Your task to perform on an android device: check storage Image 0: 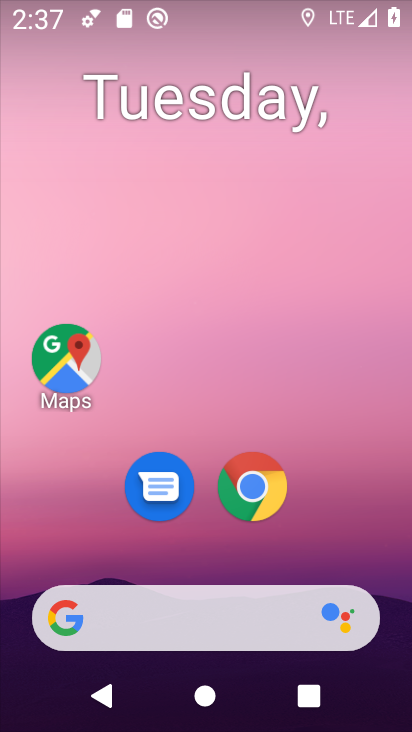
Step 0: drag from (343, 549) to (348, 130)
Your task to perform on an android device: check storage Image 1: 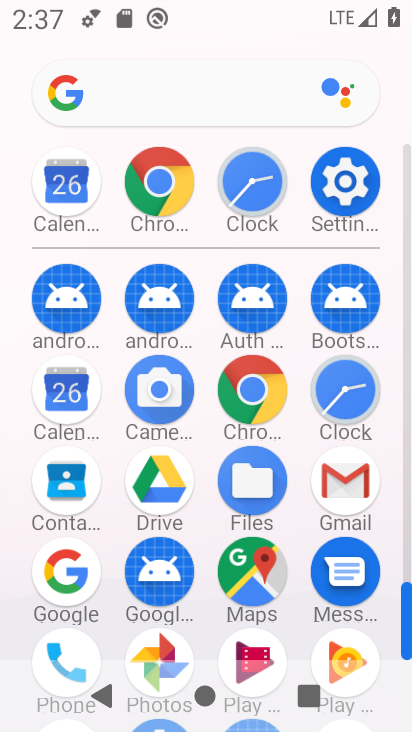
Step 1: click (353, 190)
Your task to perform on an android device: check storage Image 2: 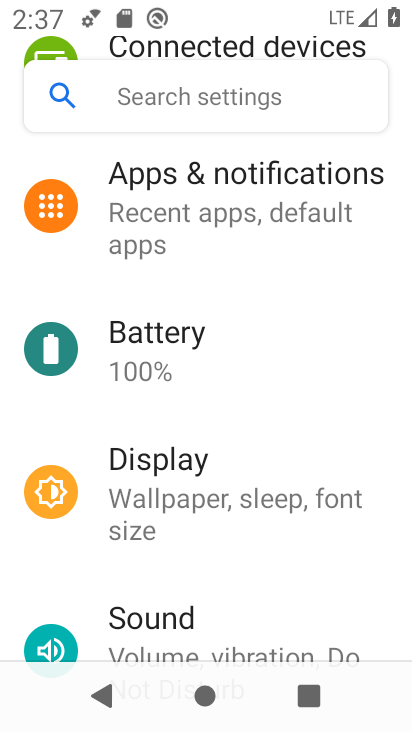
Step 2: drag from (346, 570) to (341, 457)
Your task to perform on an android device: check storage Image 3: 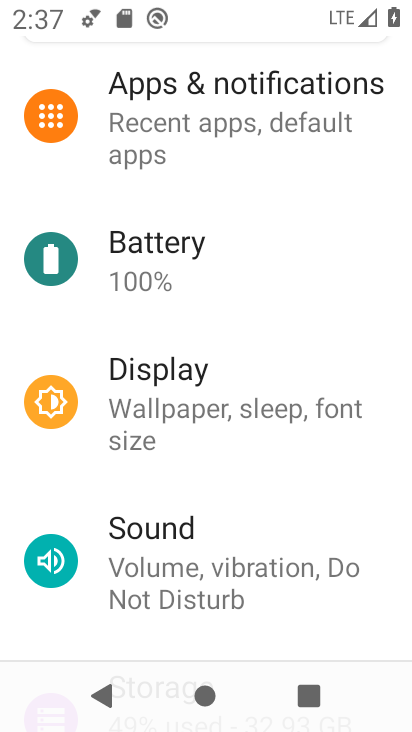
Step 3: drag from (345, 593) to (346, 497)
Your task to perform on an android device: check storage Image 4: 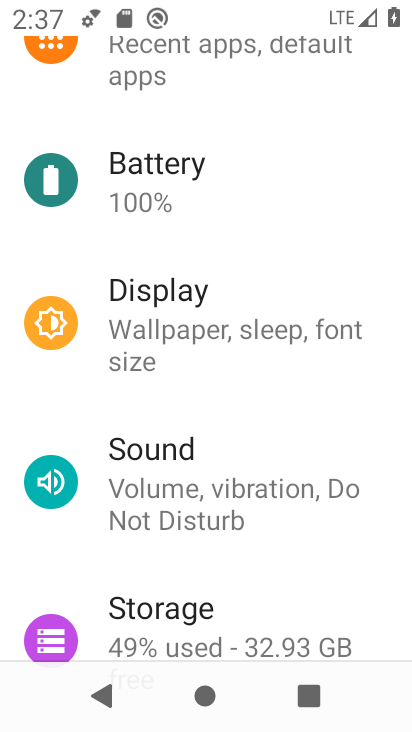
Step 4: drag from (340, 596) to (339, 518)
Your task to perform on an android device: check storage Image 5: 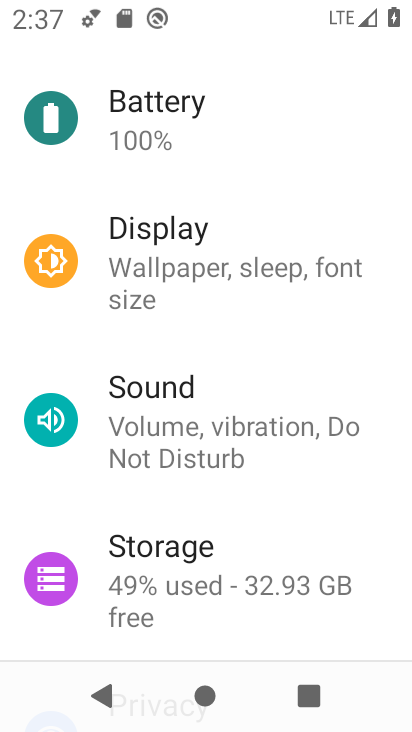
Step 5: drag from (339, 616) to (340, 494)
Your task to perform on an android device: check storage Image 6: 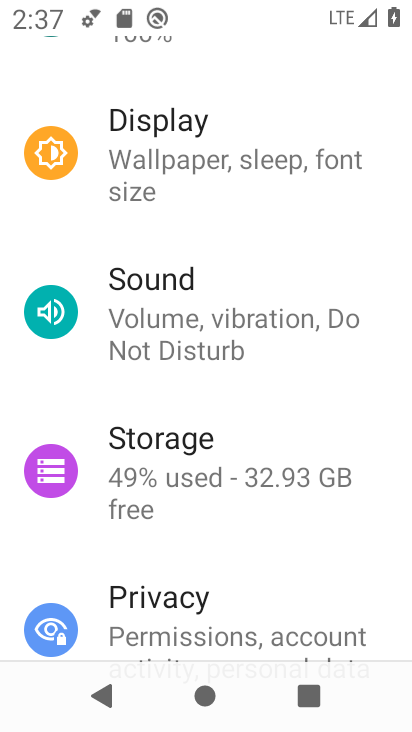
Step 6: drag from (330, 570) to (330, 480)
Your task to perform on an android device: check storage Image 7: 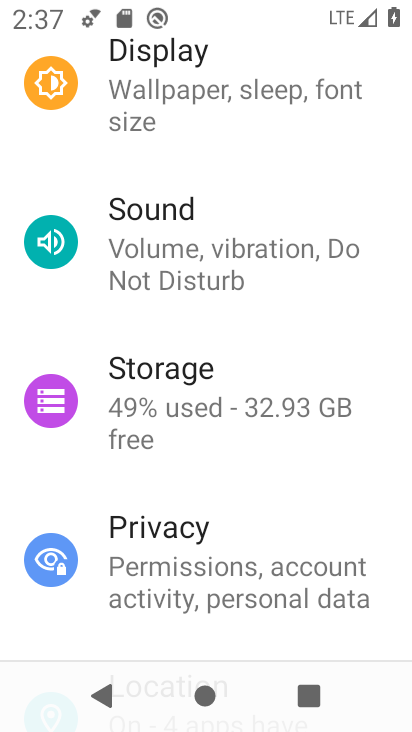
Step 7: drag from (321, 528) to (321, 377)
Your task to perform on an android device: check storage Image 8: 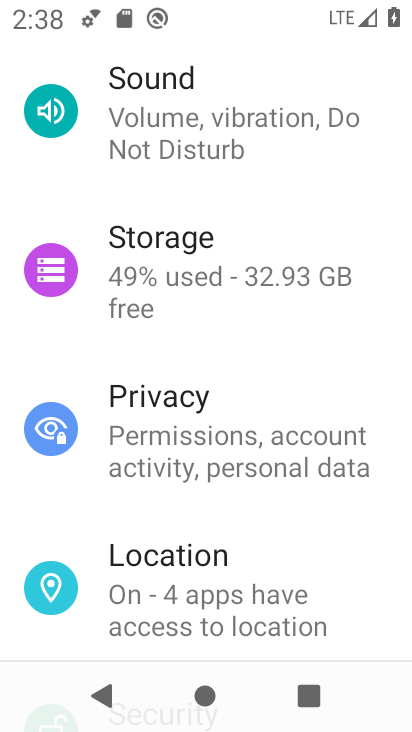
Step 8: drag from (320, 535) to (317, 434)
Your task to perform on an android device: check storage Image 9: 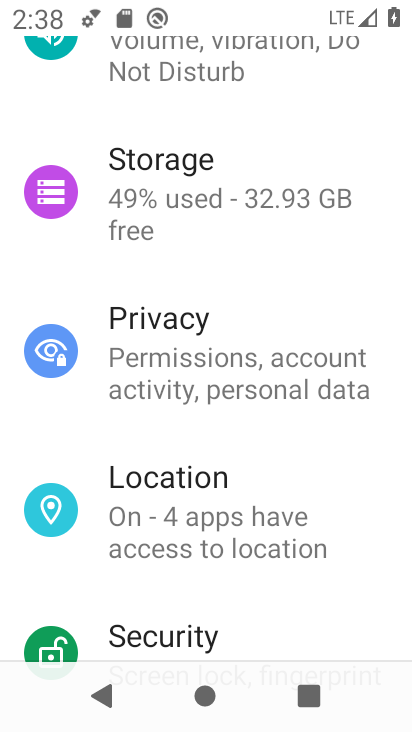
Step 9: drag from (342, 277) to (344, 412)
Your task to perform on an android device: check storage Image 10: 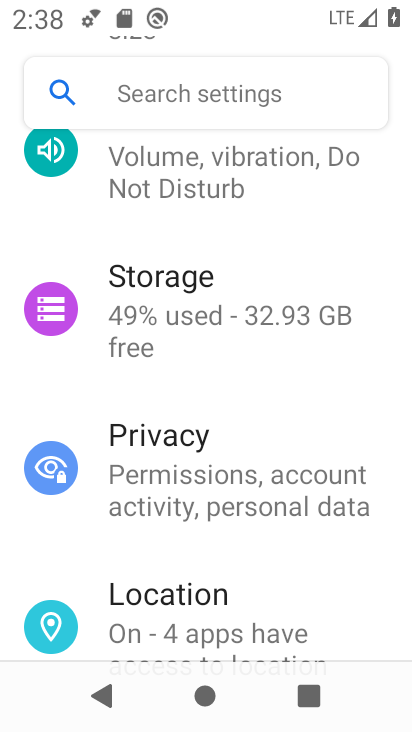
Step 10: drag from (364, 266) to (364, 448)
Your task to perform on an android device: check storage Image 11: 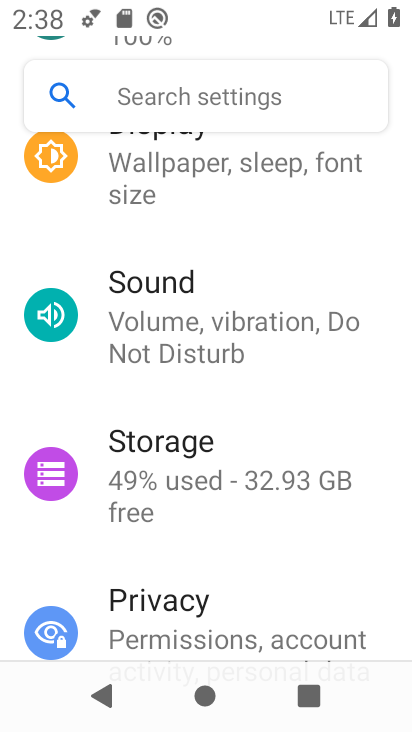
Step 11: drag from (335, 240) to (335, 409)
Your task to perform on an android device: check storage Image 12: 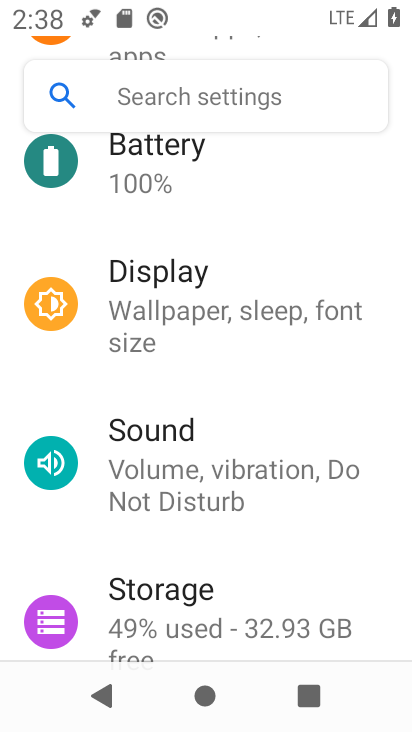
Step 12: drag from (334, 218) to (337, 381)
Your task to perform on an android device: check storage Image 13: 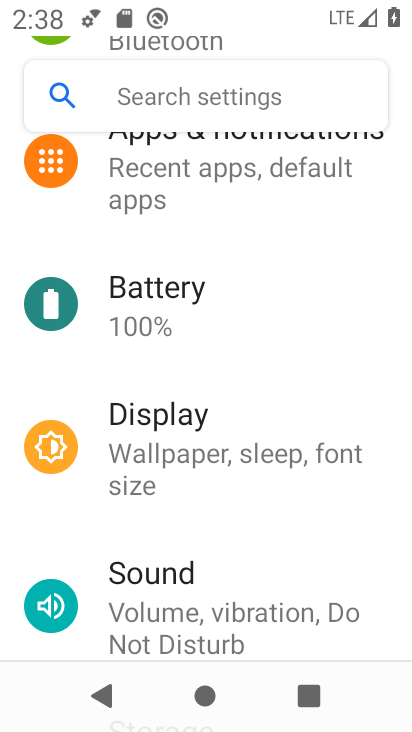
Step 13: drag from (319, 259) to (315, 405)
Your task to perform on an android device: check storage Image 14: 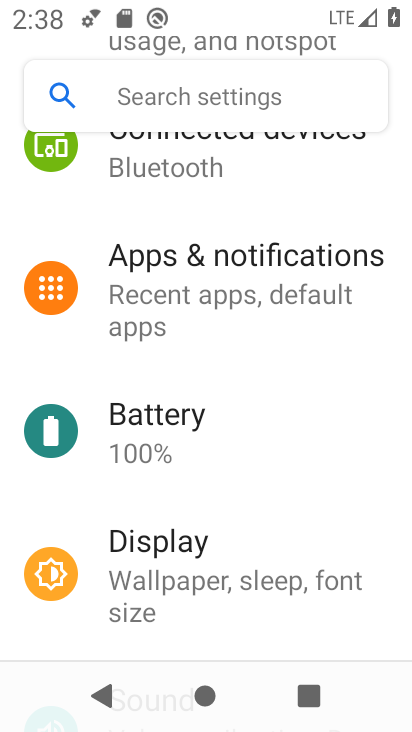
Step 14: drag from (303, 495) to (294, 406)
Your task to perform on an android device: check storage Image 15: 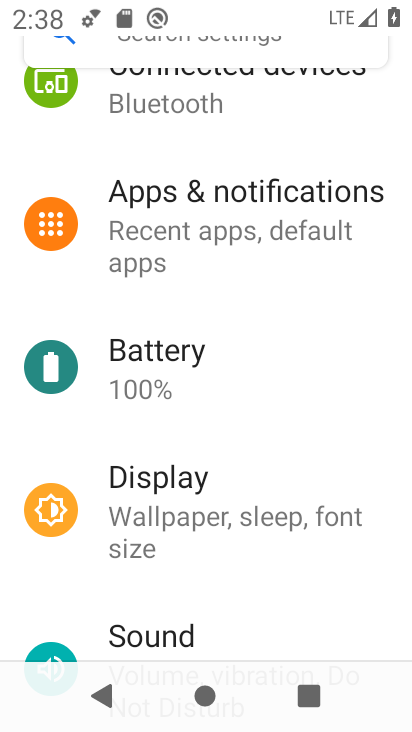
Step 15: drag from (271, 587) to (271, 471)
Your task to perform on an android device: check storage Image 16: 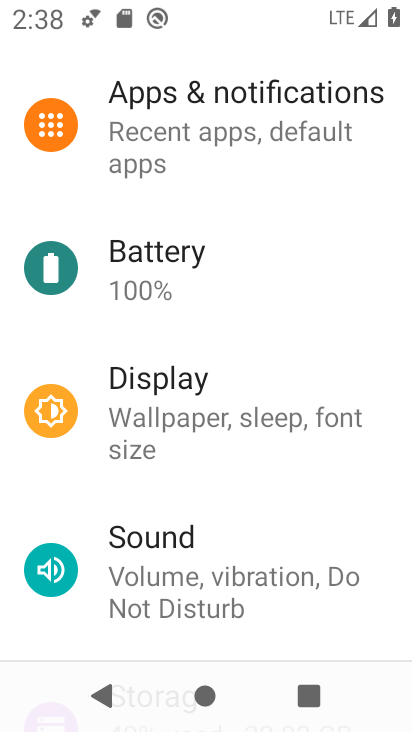
Step 16: drag from (271, 582) to (267, 458)
Your task to perform on an android device: check storage Image 17: 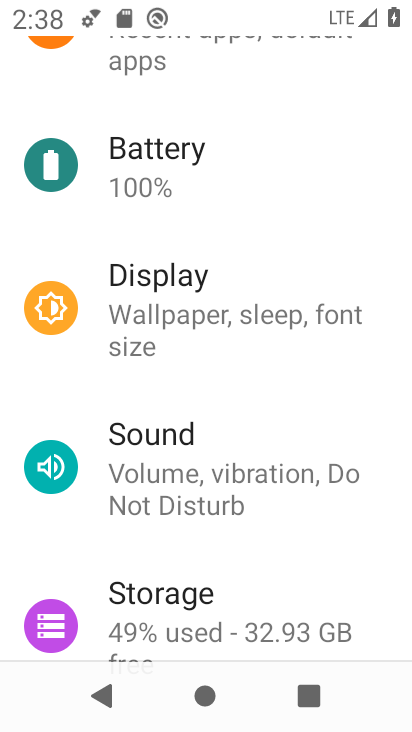
Step 17: drag from (281, 572) to (278, 454)
Your task to perform on an android device: check storage Image 18: 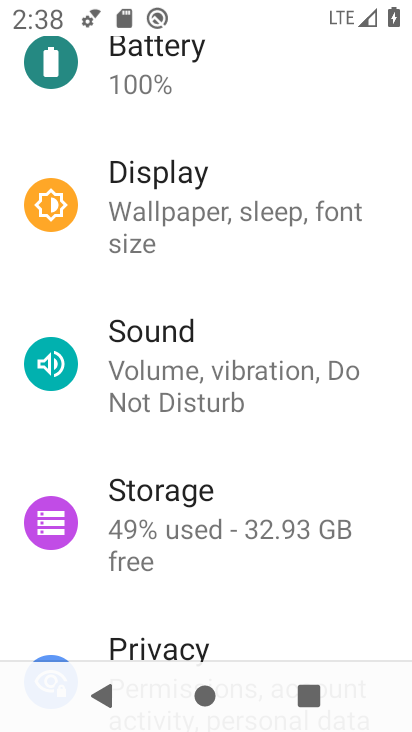
Step 18: drag from (276, 529) to (276, 465)
Your task to perform on an android device: check storage Image 19: 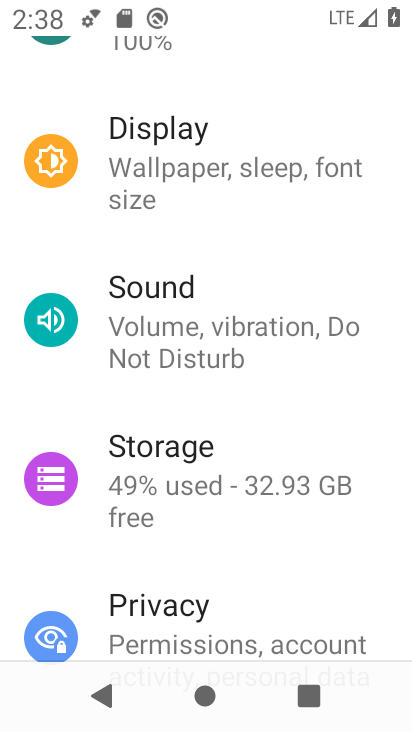
Step 19: drag from (265, 581) to (272, 470)
Your task to perform on an android device: check storage Image 20: 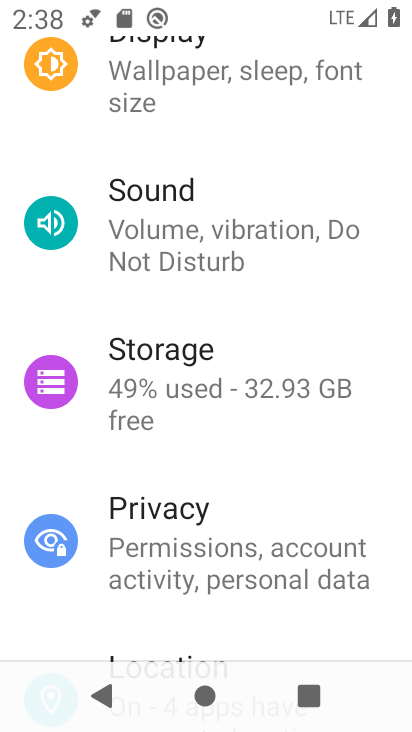
Step 20: drag from (260, 586) to (258, 461)
Your task to perform on an android device: check storage Image 21: 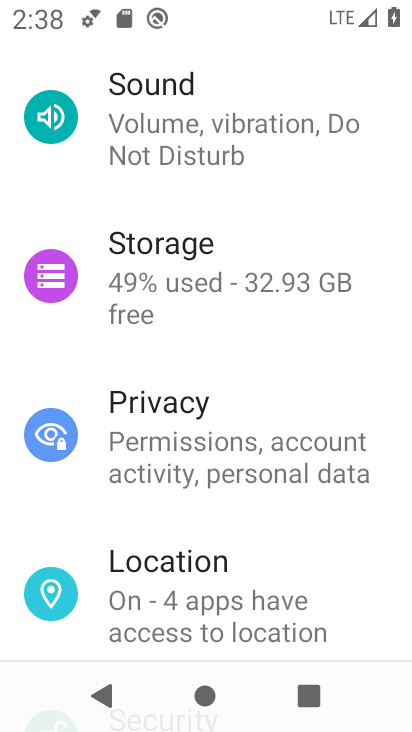
Step 21: drag from (252, 605) to (254, 484)
Your task to perform on an android device: check storage Image 22: 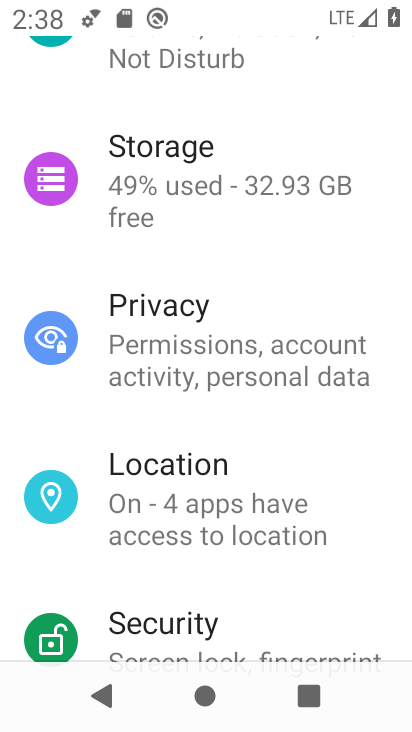
Step 22: drag from (247, 582) to (249, 501)
Your task to perform on an android device: check storage Image 23: 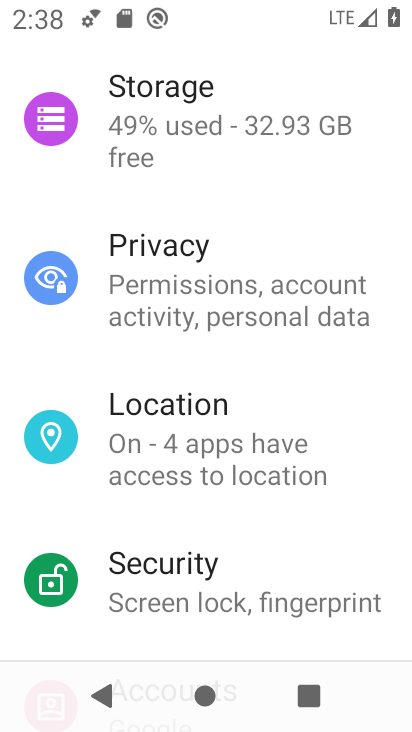
Step 23: click (270, 133)
Your task to perform on an android device: check storage Image 24: 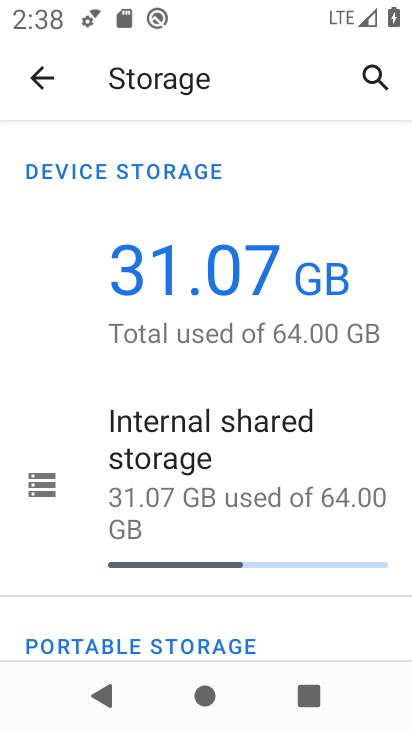
Step 24: task complete